Your task to perform on an android device: turn off airplane mode Image 0: 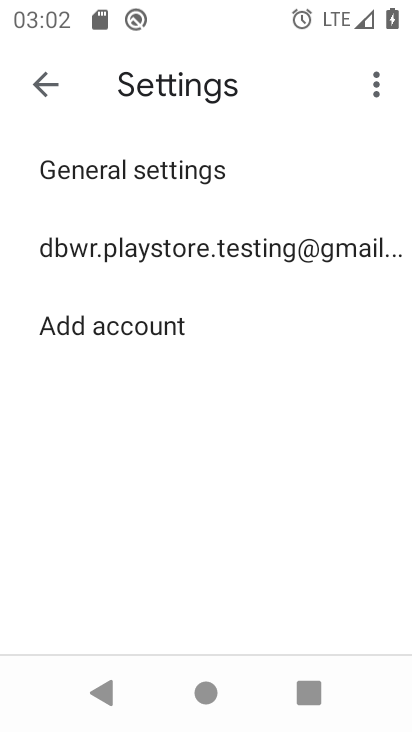
Step 0: press home button
Your task to perform on an android device: turn off airplane mode Image 1: 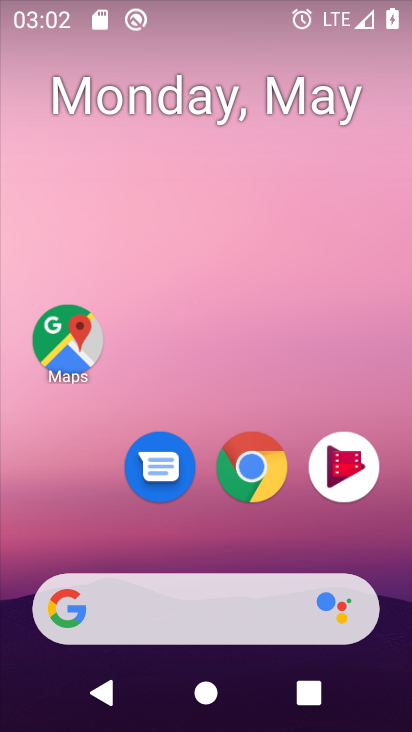
Step 1: drag from (223, 518) to (297, 174)
Your task to perform on an android device: turn off airplane mode Image 2: 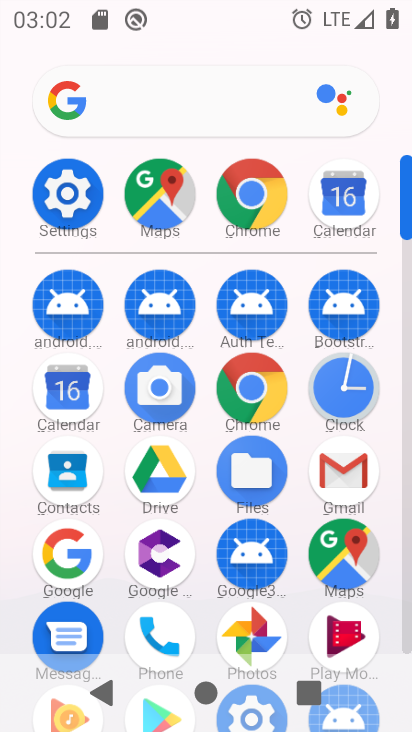
Step 2: click (62, 178)
Your task to perform on an android device: turn off airplane mode Image 3: 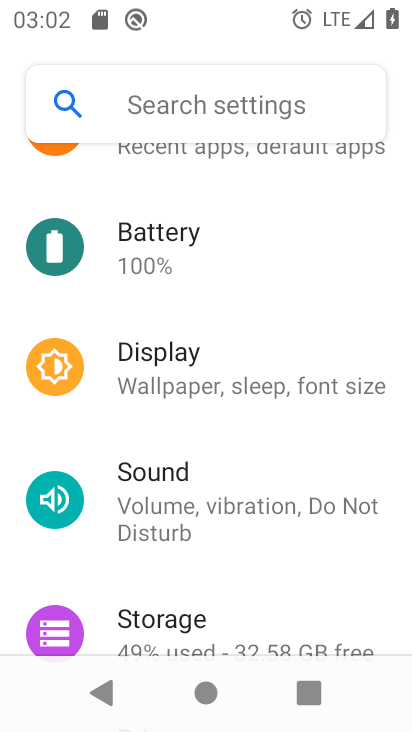
Step 3: drag from (239, 225) to (200, 644)
Your task to perform on an android device: turn off airplane mode Image 4: 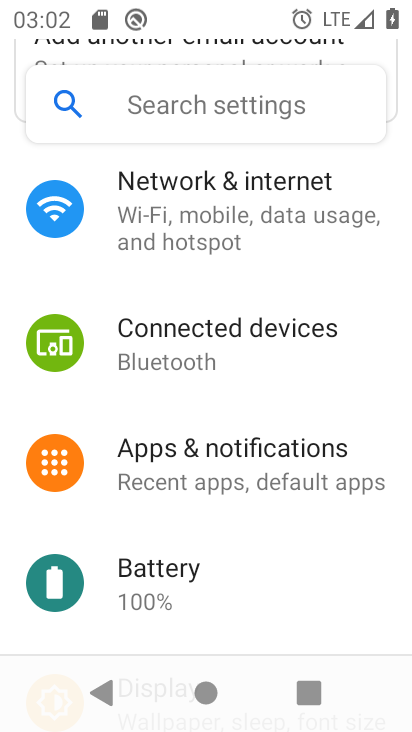
Step 4: drag from (256, 243) to (257, 435)
Your task to perform on an android device: turn off airplane mode Image 5: 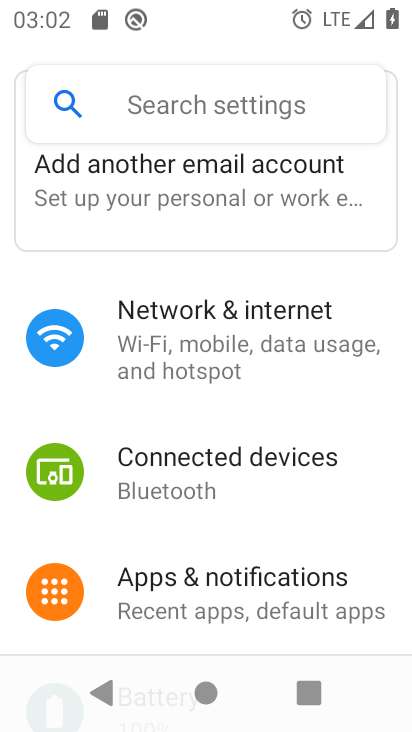
Step 5: click (259, 331)
Your task to perform on an android device: turn off airplane mode Image 6: 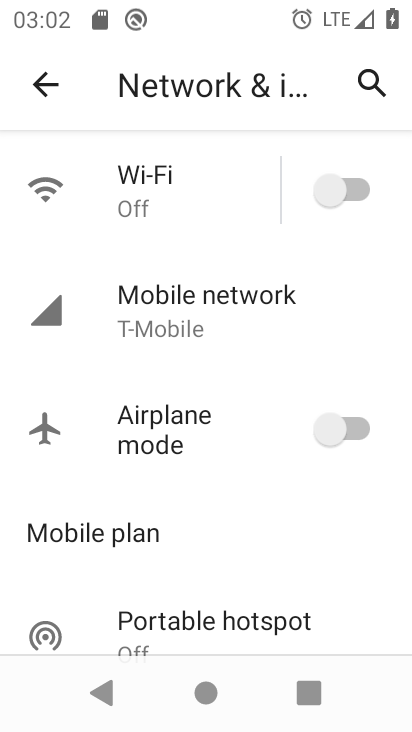
Step 6: task complete